Your task to perform on an android device: toggle show notifications on the lock screen Image 0: 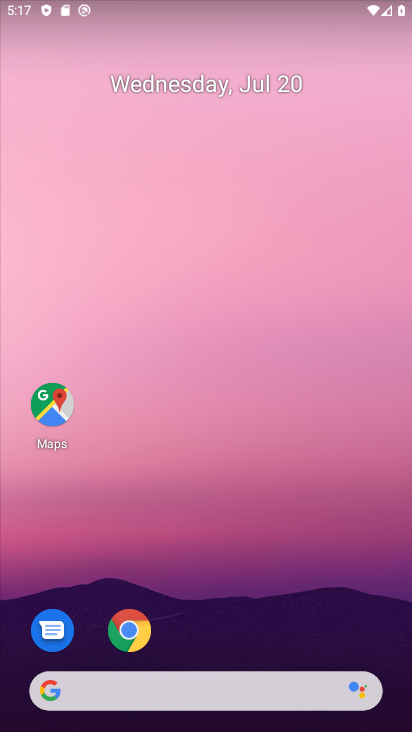
Step 0: drag from (183, 687) to (253, 63)
Your task to perform on an android device: toggle show notifications on the lock screen Image 1: 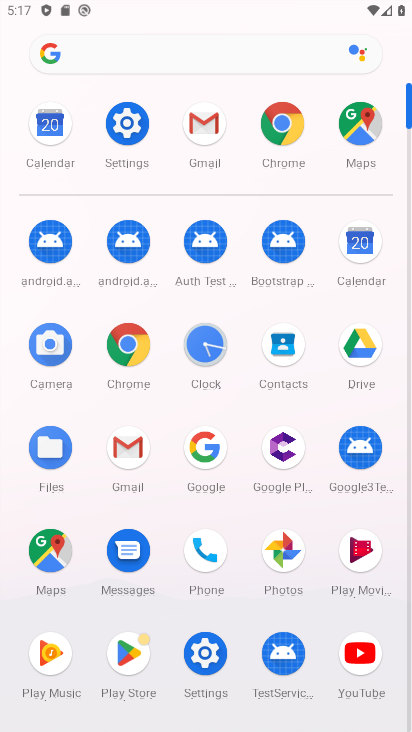
Step 1: click (129, 126)
Your task to perform on an android device: toggle show notifications on the lock screen Image 2: 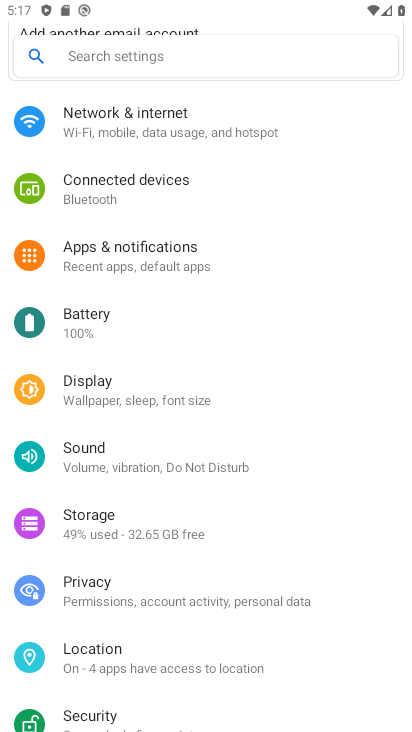
Step 2: click (119, 242)
Your task to perform on an android device: toggle show notifications on the lock screen Image 3: 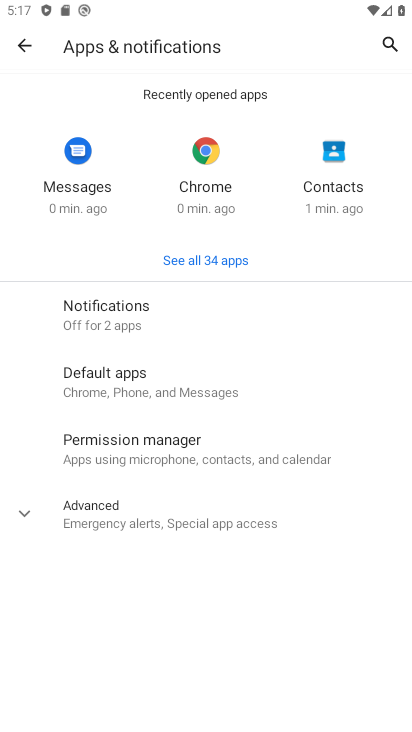
Step 3: click (131, 311)
Your task to perform on an android device: toggle show notifications on the lock screen Image 4: 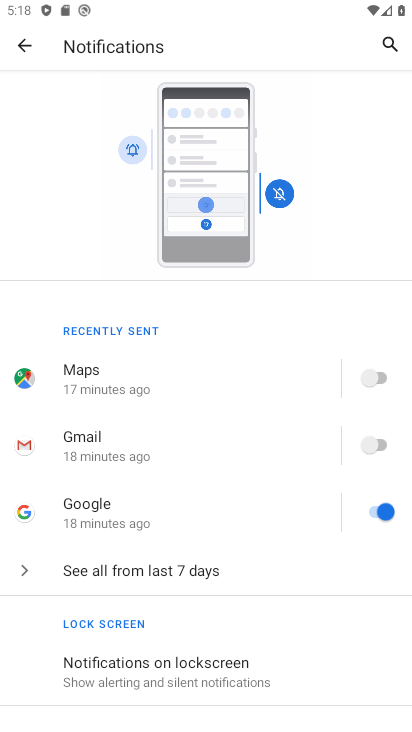
Step 4: drag from (180, 670) to (199, 361)
Your task to perform on an android device: toggle show notifications on the lock screen Image 5: 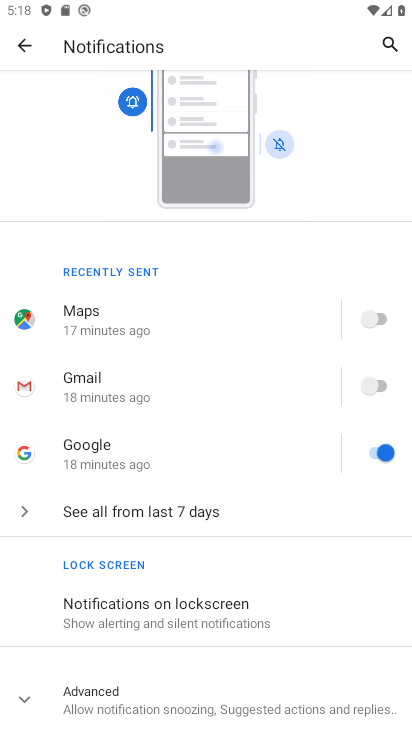
Step 5: click (176, 614)
Your task to perform on an android device: toggle show notifications on the lock screen Image 6: 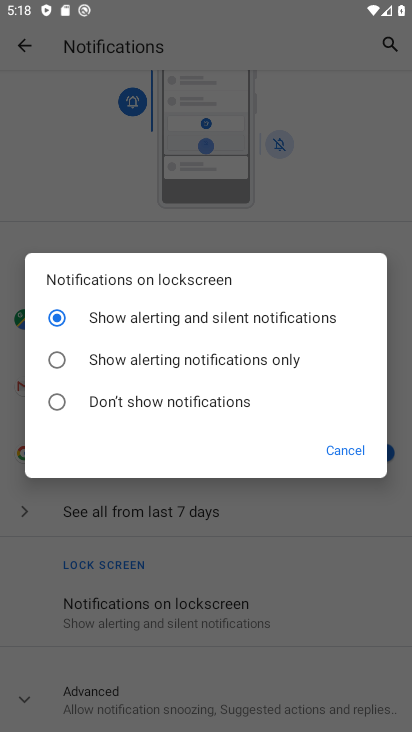
Step 6: click (60, 404)
Your task to perform on an android device: toggle show notifications on the lock screen Image 7: 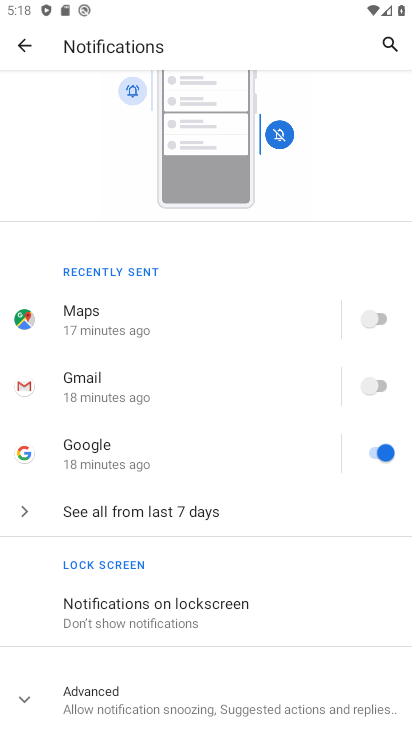
Step 7: task complete